Your task to perform on an android device: Open Youtube and go to the subscriptions tab Image 0: 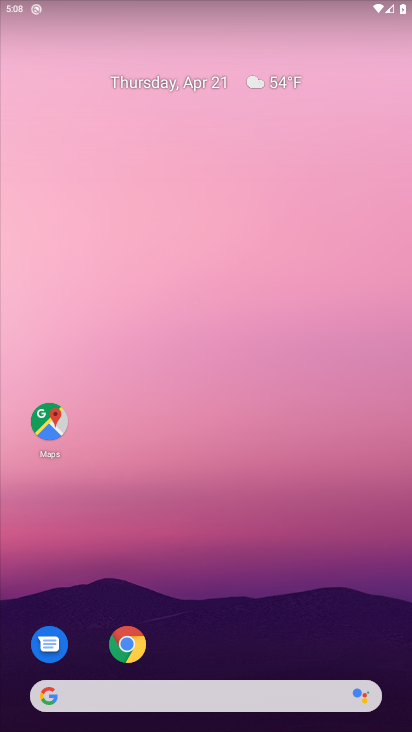
Step 0: drag from (253, 673) to (293, 289)
Your task to perform on an android device: Open Youtube and go to the subscriptions tab Image 1: 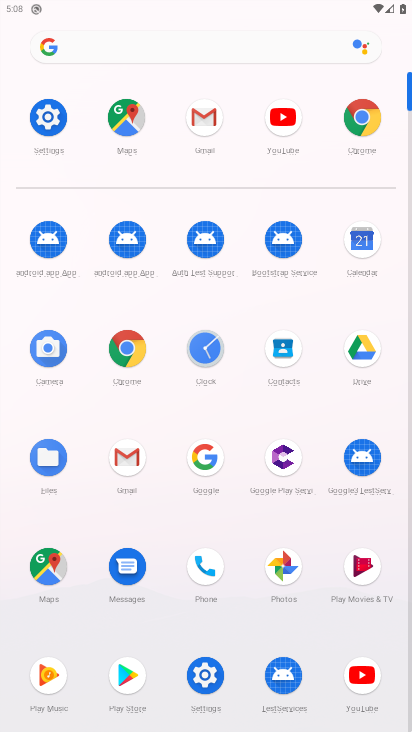
Step 1: click (289, 122)
Your task to perform on an android device: Open Youtube and go to the subscriptions tab Image 2: 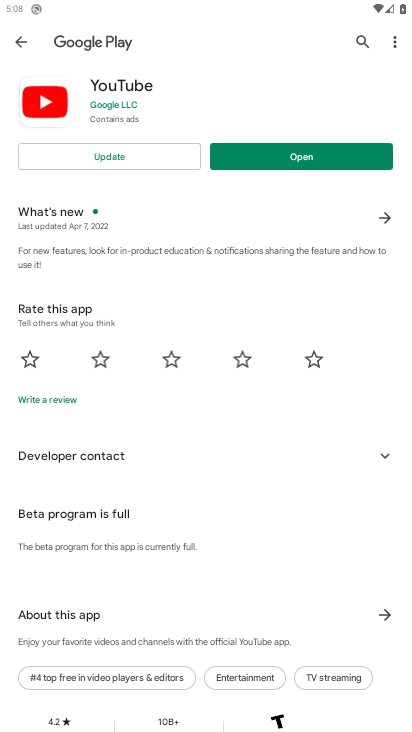
Step 2: click (134, 154)
Your task to perform on an android device: Open Youtube and go to the subscriptions tab Image 3: 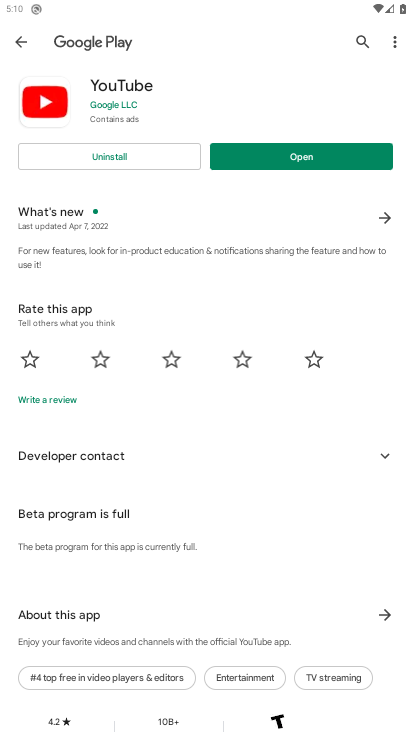
Step 3: click (308, 155)
Your task to perform on an android device: Open Youtube and go to the subscriptions tab Image 4: 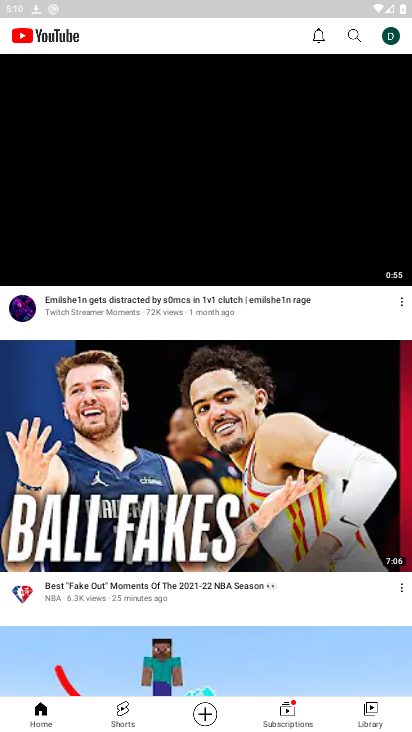
Step 4: click (295, 709)
Your task to perform on an android device: Open Youtube and go to the subscriptions tab Image 5: 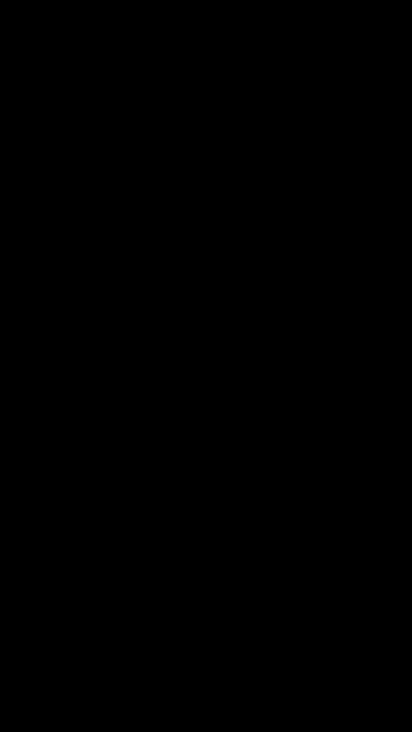
Step 5: task complete